Your task to perform on an android device: Open privacy settings Image 0: 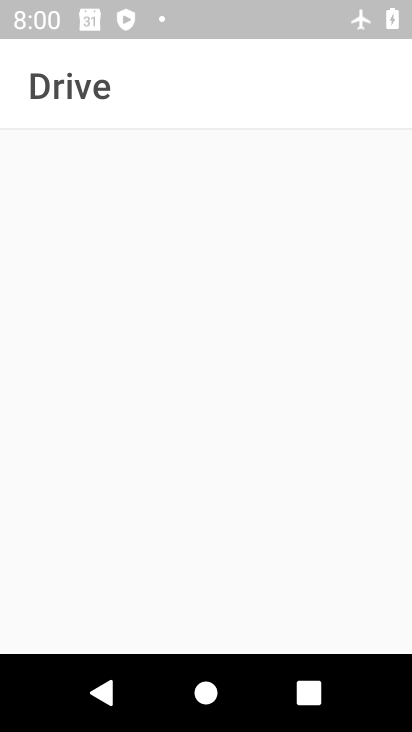
Step 0: press home button
Your task to perform on an android device: Open privacy settings Image 1: 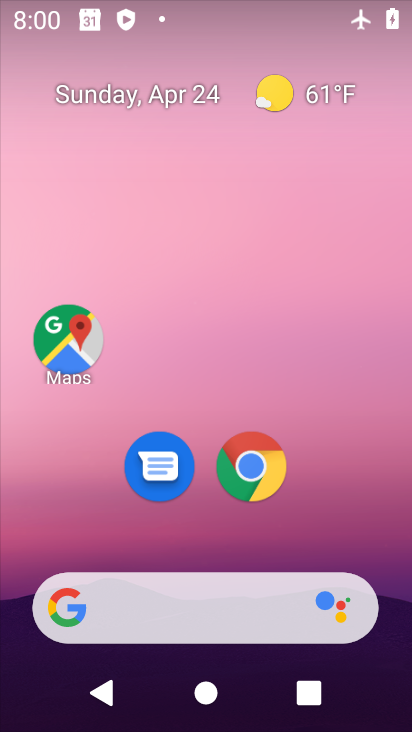
Step 1: drag from (217, 559) to (234, 15)
Your task to perform on an android device: Open privacy settings Image 2: 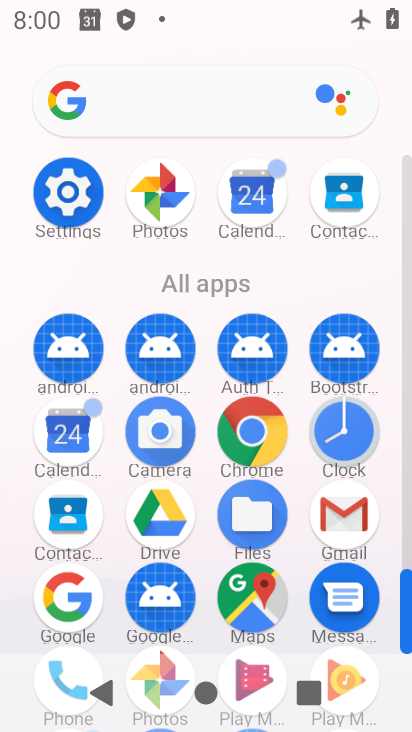
Step 2: click (66, 191)
Your task to perform on an android device: Open privacy settings Image 3: 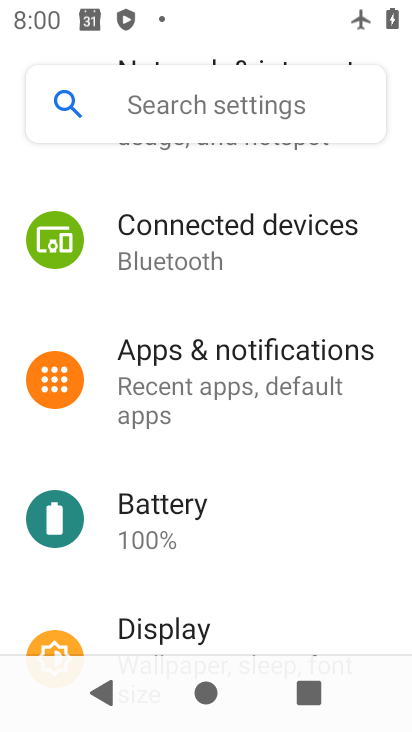
Step 3: drag from (186, 567) to (262, 84)
Your task to perform on an android device: Open privacy settings Image 4: 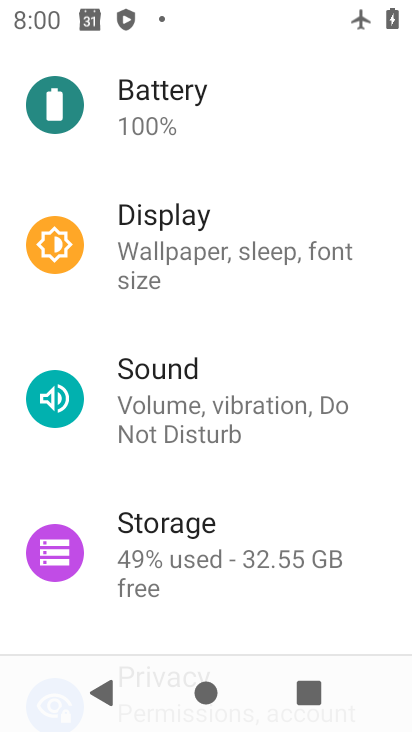
Step 4: drag from (183, 486) to (250, 69)
Your task to perform on an android device: Open privacy settings Image 5: 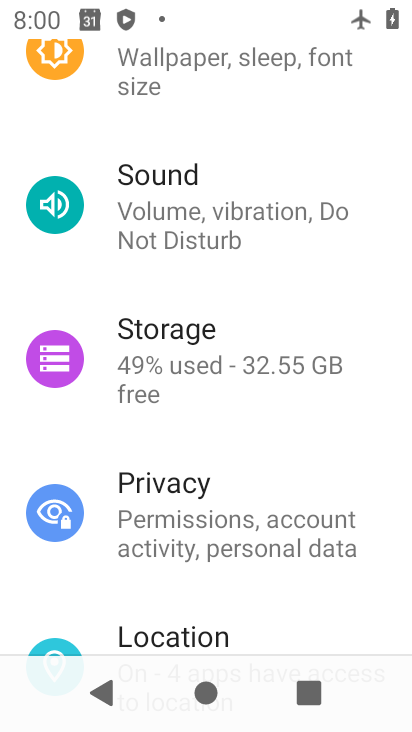
Step 5: click (161, 514)
Your task to perform on an android device: Open privacy settings Image 6: 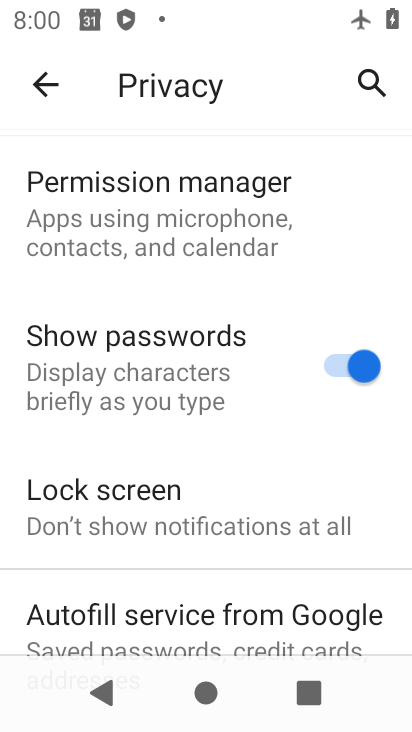
Step 6: task complete